Your task to perform on an android device: add a contact Image 0: 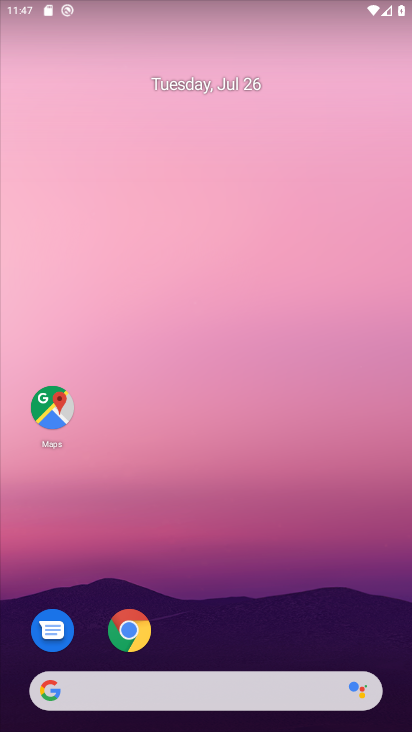
Step 0: drag from (277, 590) to (286, 4)
Your task to perform on an android device: add a contact Image 1: 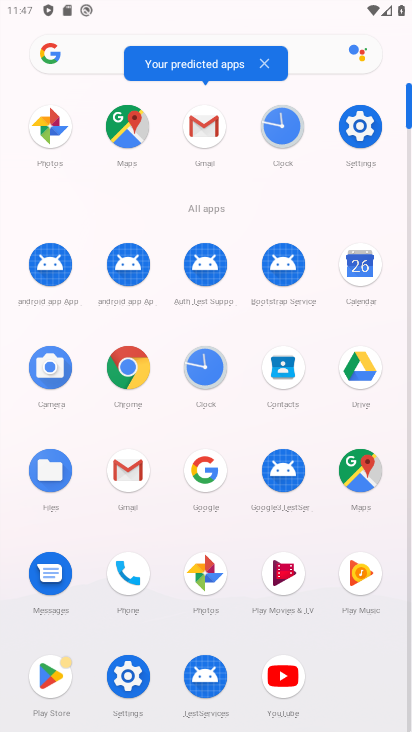
Step 1: click (286, 371)
Your task to perform on an android device: add a contact Image 2: 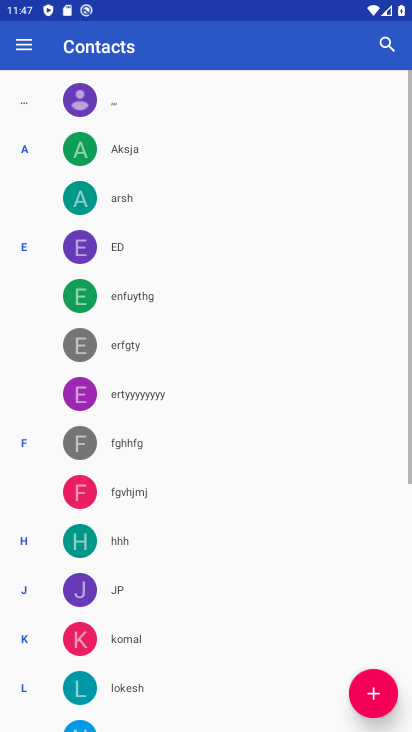
Step 2: click (374, 679)
Your task to perform on an android device: add a contact Image 3: 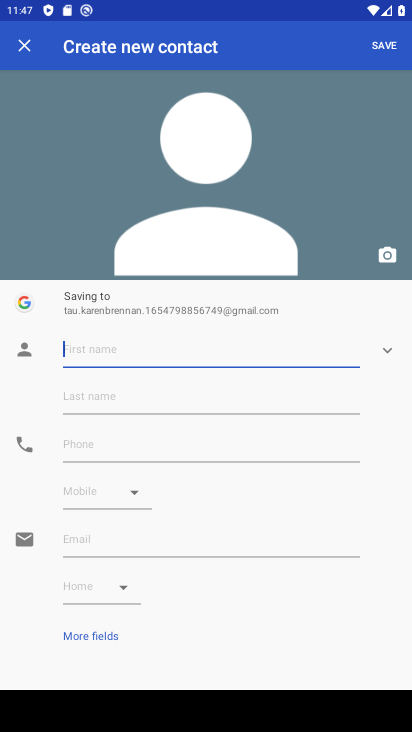
Step 3: type "nmjk"
Your task to perform on an android device: add a contact Image 4: 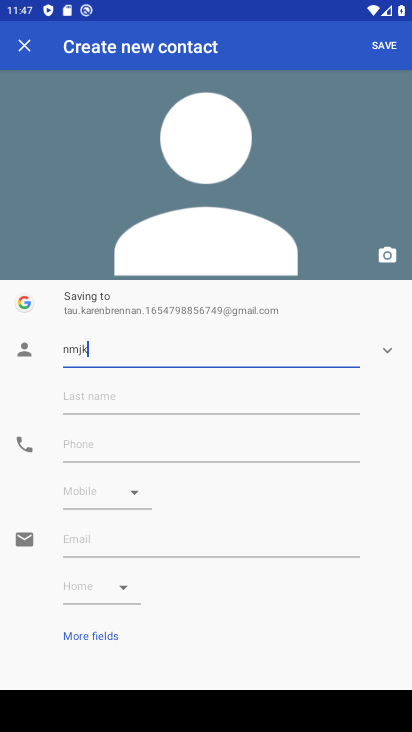
Step 4: click (120, 444)
Your task to perform on an android device: add a contact Image 5: 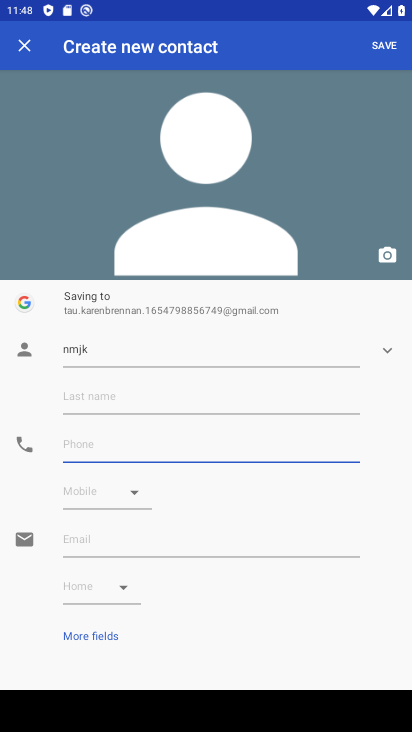
Step 5: type "78789898989"
Your task to perform on an android device: add a contact Image 6: 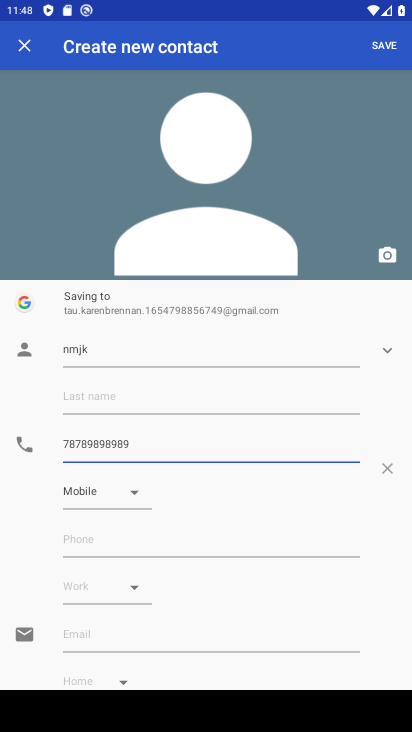
Step 6: click (388, 52)
Your task to perform on an android device: add a contact Image 7: 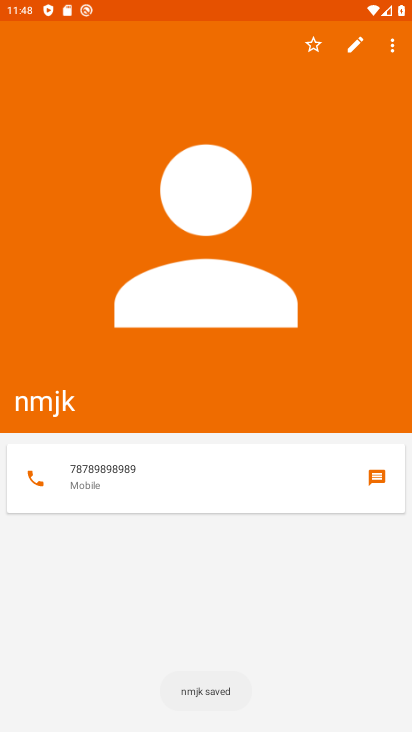
Step 7: task complete